Your task to perform on an android device: turn notification dots off Image 0: 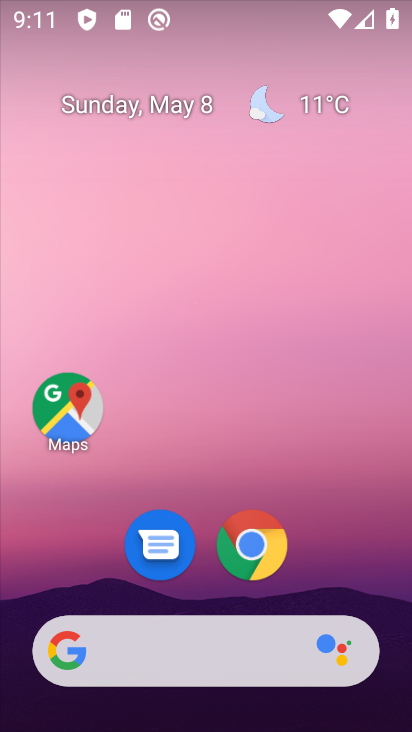
Step 0: drag from (219, 609) to (181, 14)
Your task to perform on an android device: turn notification dots off Image 1: 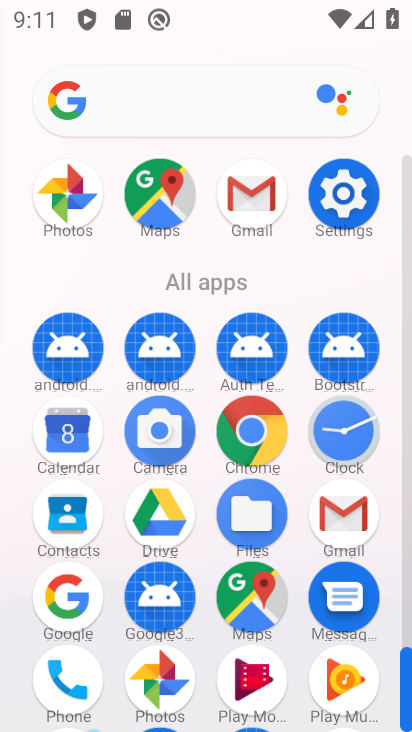
Step 1: click (342, 182)
Your task to perform on an android device: turn notification dots off Image 2: 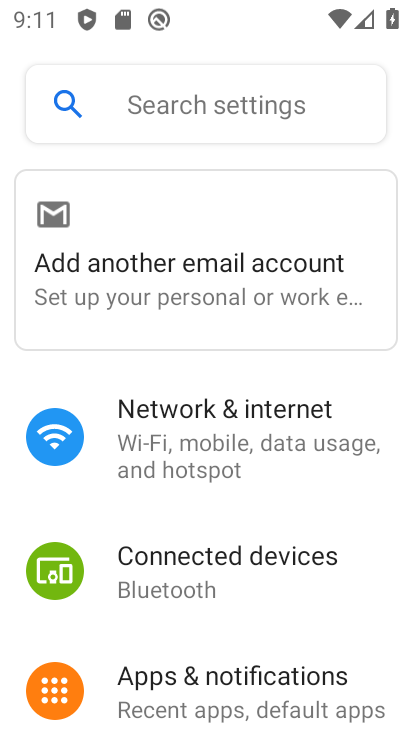
Step 2: click (187, 665)
Your task to perform on an android device: turn notification dots off Image 3: 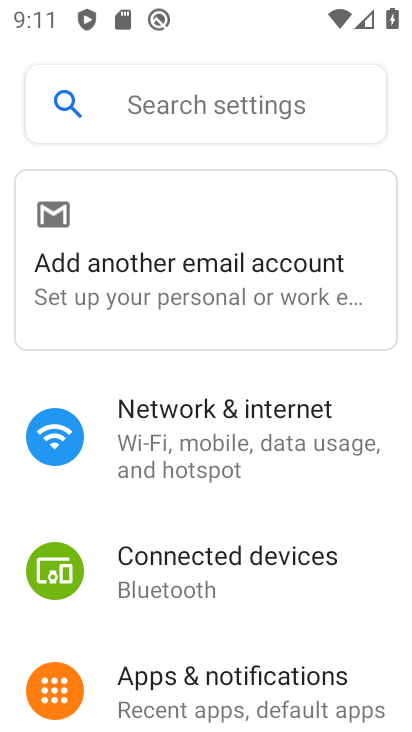
Step 3: drag from (190, 666) to (128, 210)
Your task to perform on an android device: turn notification dots off Image 4: 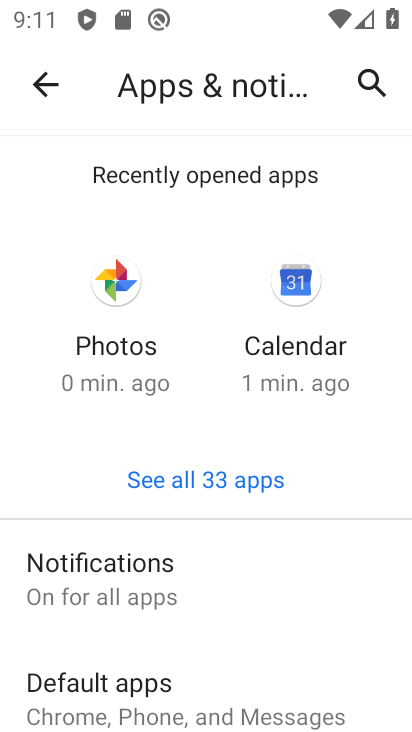
Step 4: click (161, 597)
Your task to perform on an android device: turn notification dots off Image 5: 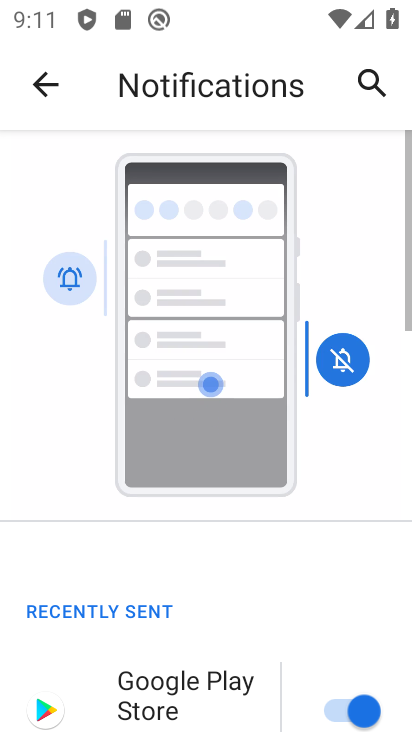
Step 5: drag from (161, 597) to (143, 78)
Your task to perform on an android device: turn notification dots off Image 6: 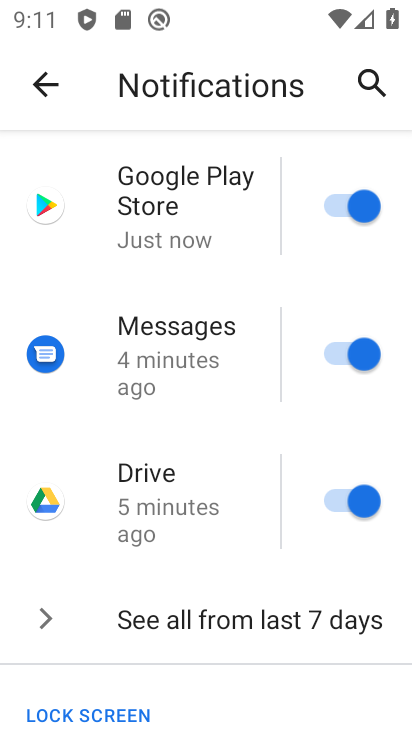
Step 6: drag from (209, 561) to (146, 219)
Your task to perform on an android device: turn notification dots off Image 7: 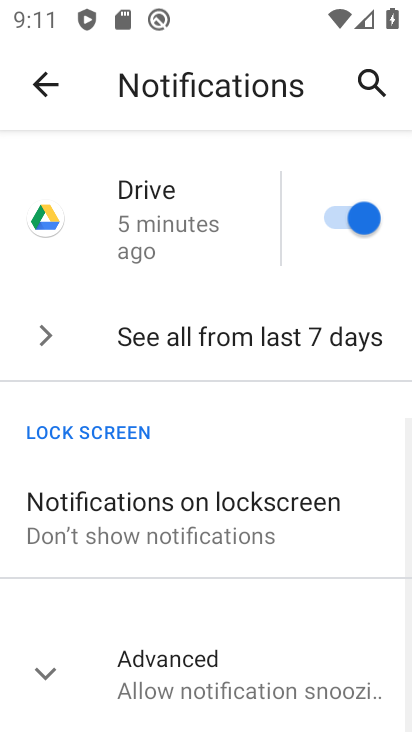
Step 7: click (179, 723)
Your task to perform on an android device: turn notification dots off Image 8: 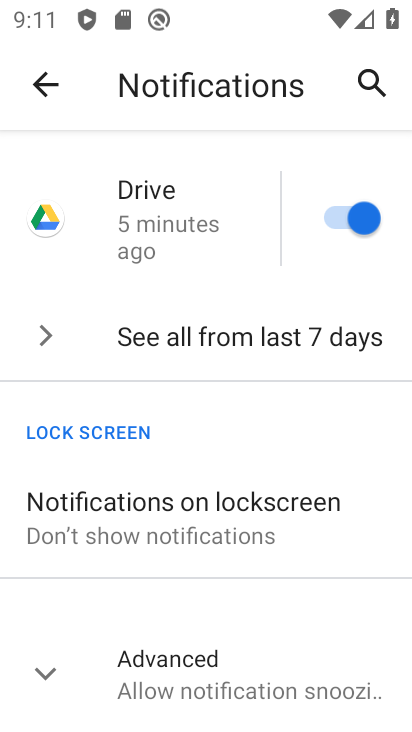
Step 8: drag from (171, 699) to (133, 226)
Your task to perform on an android device: turn notification dots off Image 9: 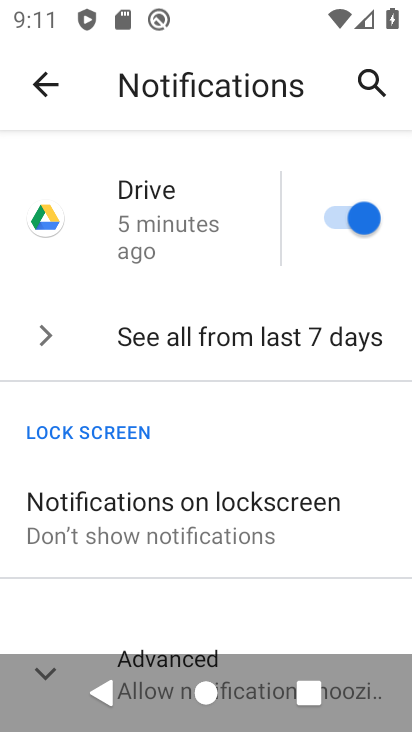
Step 9: drag from (206, 569) to (182, 259)
Your task to perform on an android device: turn notification dots off Image 10: 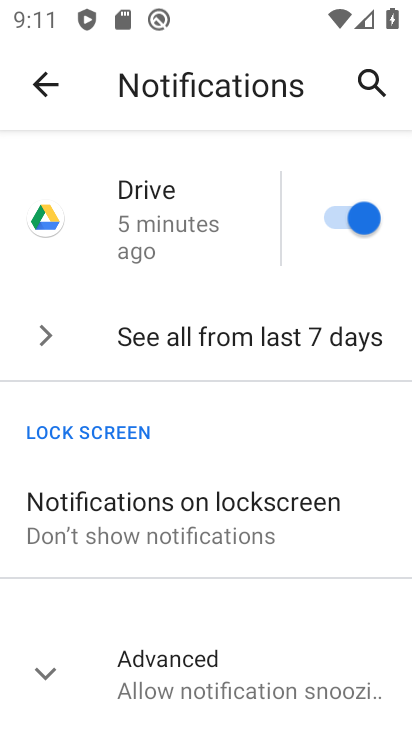
Step 10: click (131, 677)
Your task to perform on an android device: turn notification dots off Image 11: 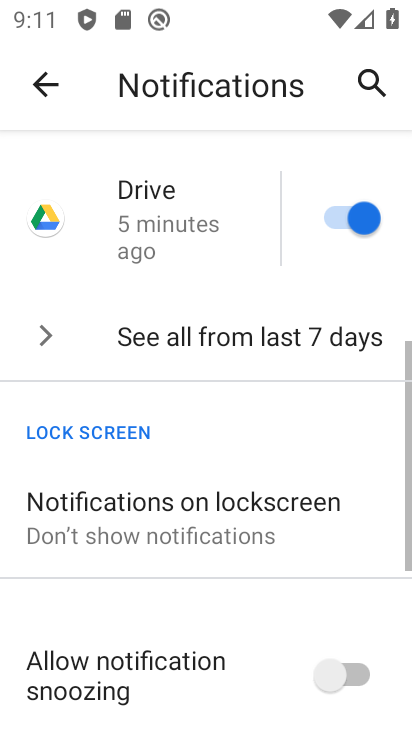
Step 11: drag from (130, 679) to (137, 121)
Your task to perform on an android device: turn notification dots off Image 12: 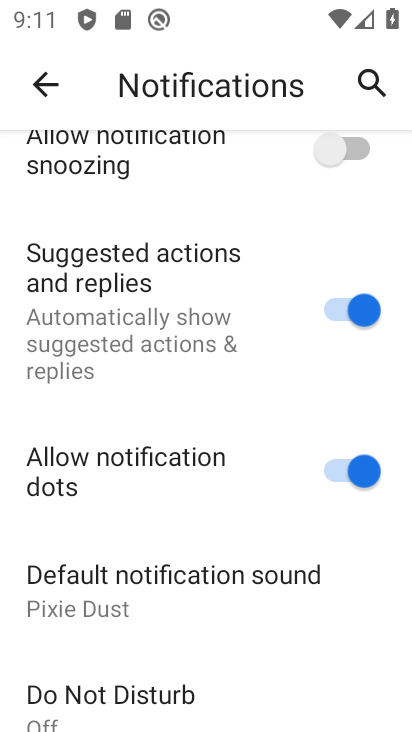
Step 12: click (348, 459)
Your task to perform on an android device: turn notification dots off Image 13: 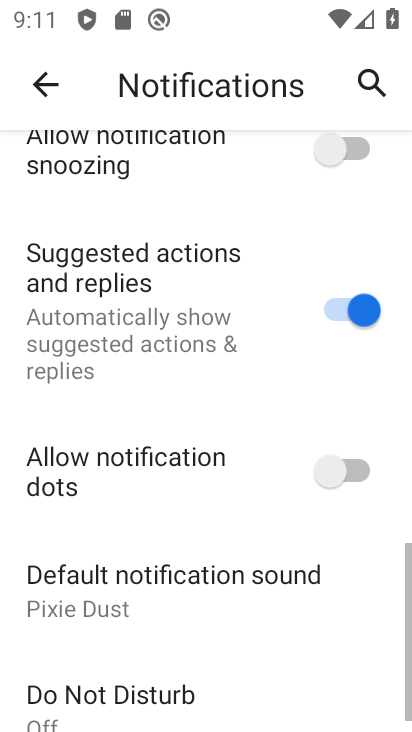
Step 13: task complete